Your task to perform on an android device: Open location settings Image 0: 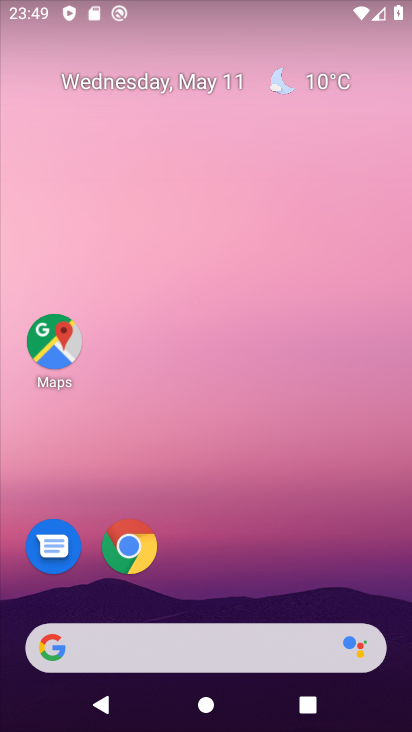
Step 0: drag from (153, 598) to (164, 215)
Your task to perform on an android device: Open location settings Image 1: 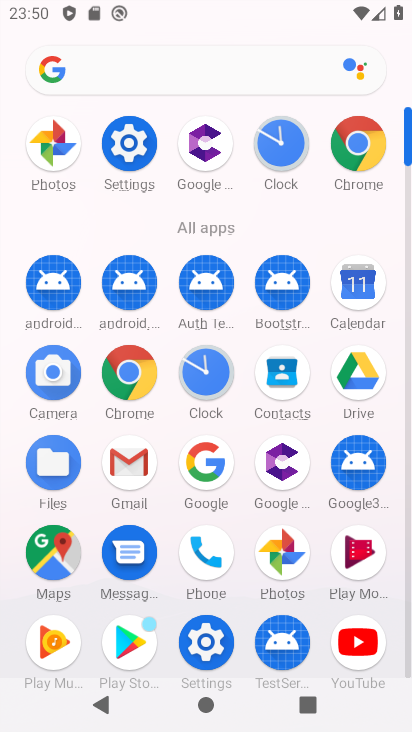
Step 1: click (201, 639)
Your task to perform on an android device: Open location settings Image 2: 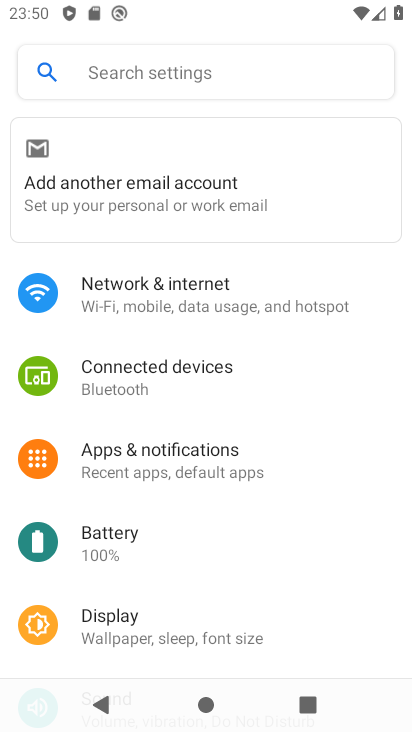
Step 2: drag from (156, 545) to (240, 205)
Your task to perform on an android device: Open location settings Image 3: 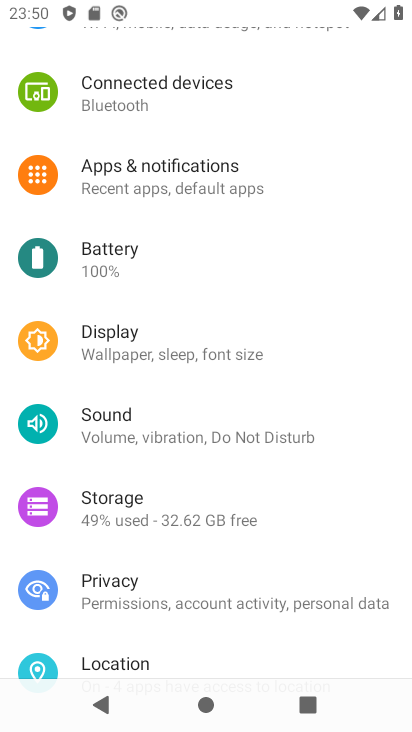
Step 3: drag from (91, 606) to (136, 359)
Your task to perform on an android device: Open location settings Image 4: 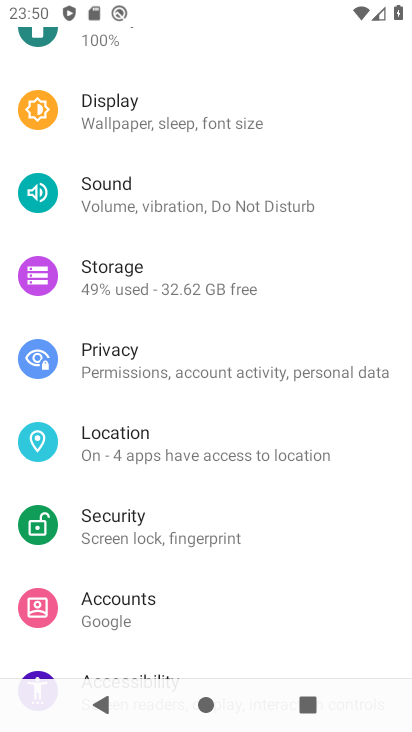
Step 4: click (118, 434)
Your task to perform on an android device: Open location settings Image 5: 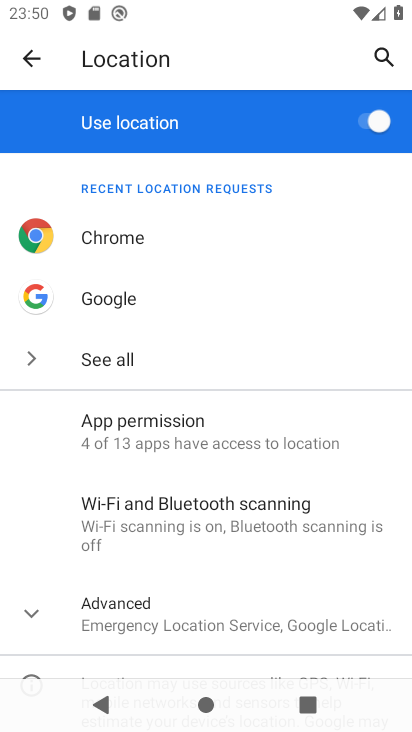
Step 5: task complete